Your task to perform on an android device: Open the calendar and show me this week's events? Image 0: 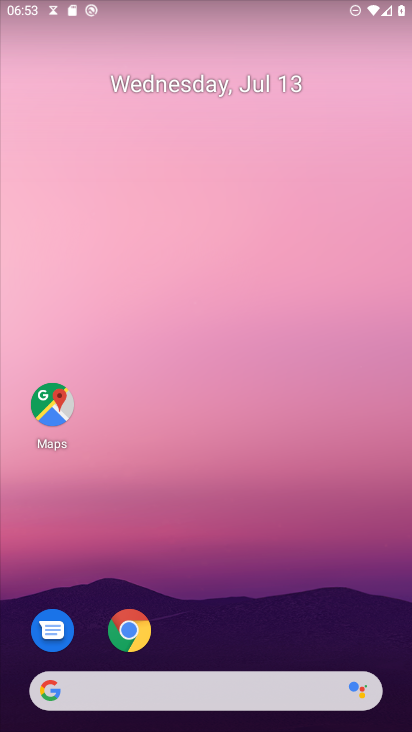
Step 0: drag from (309, 712) to (351, 26)
Your task to perform on an android device: Open the calendar and show me this week's events? Image 1: 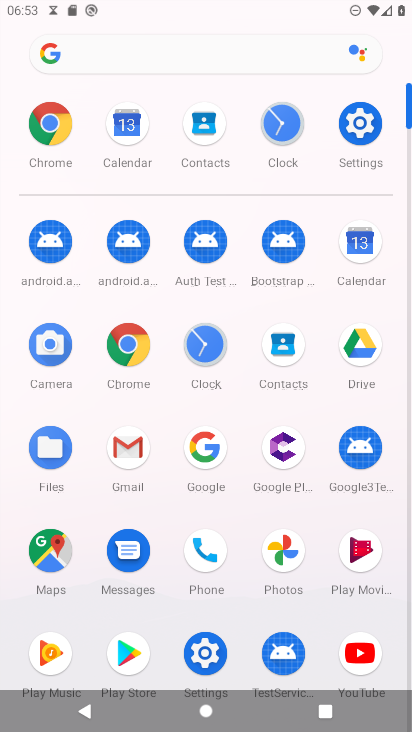
Step 1: click (364, 247)
Your task to perform on an android device: Open the calendar and show me this week's events? Image 2: 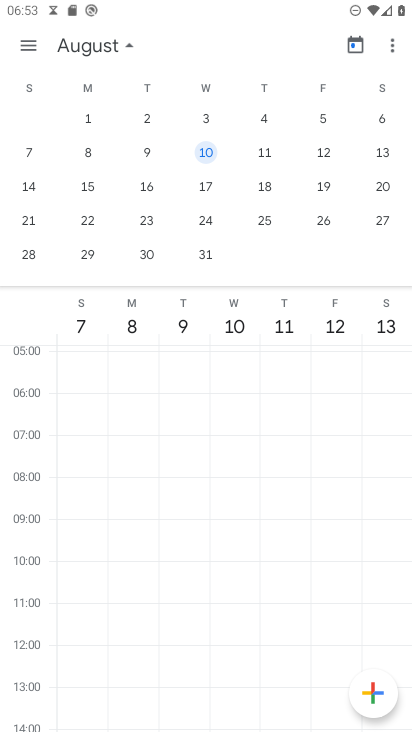
Step 2: drag from (137, 178) to (405, 208)
Your task to perform on an android device: Open the calendar and show me this week's events? Image 3: 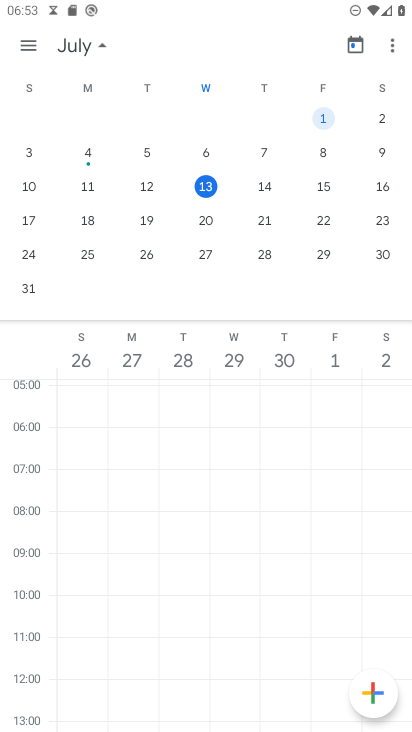
Step 3: click (372, 182)
Your task to perform on an android device: Open the calendar and show me this week's events? Image 4: 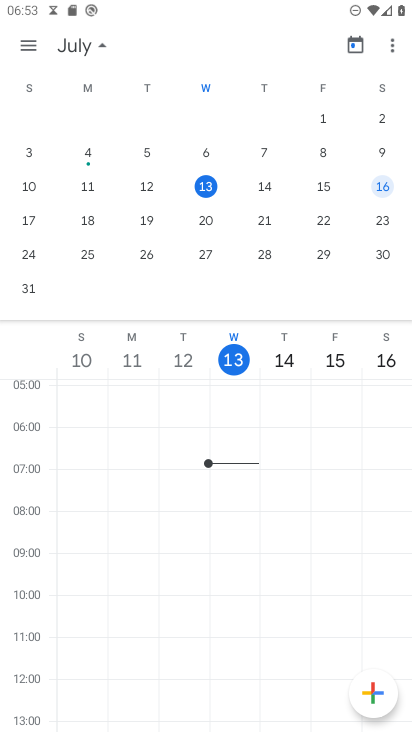
Step 4: task complete